Your task to perform on an android device: Search for Mexican restaurants on Maps Image 0: 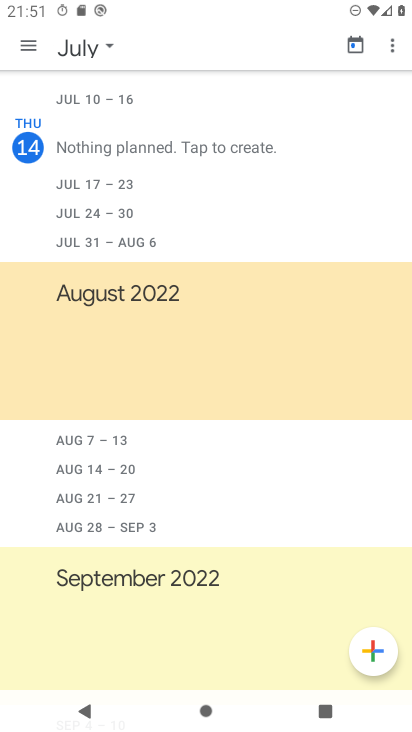
Step 0: press home button
Your task to perform on an android device: Search for Mexican restaurants on Maps Image 1: 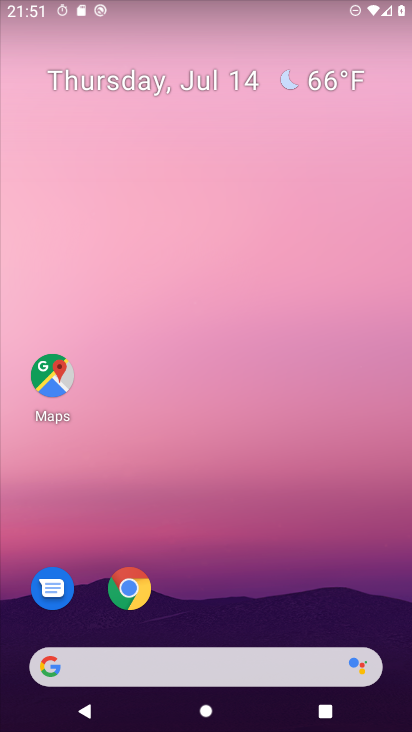
Step 1: drag from (303, 548) to (303, 142)
Your task to perform on an android device: Search for Mexican restaurants on Maps Image 2: 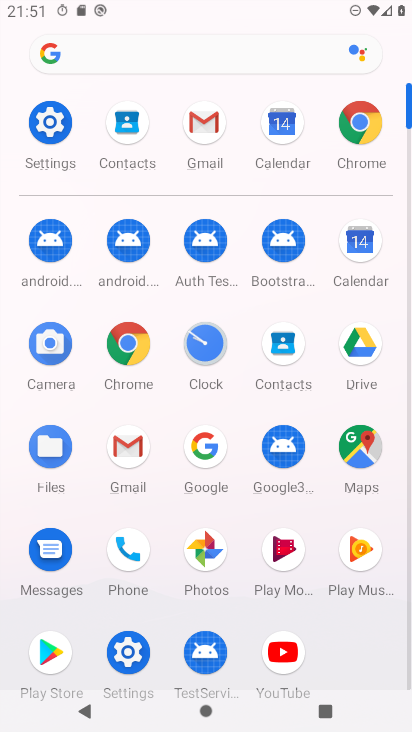
Step 2: click (363, 449)
Your task to perform on an android device: Search for Mexican restaurants on Maps Image 3: 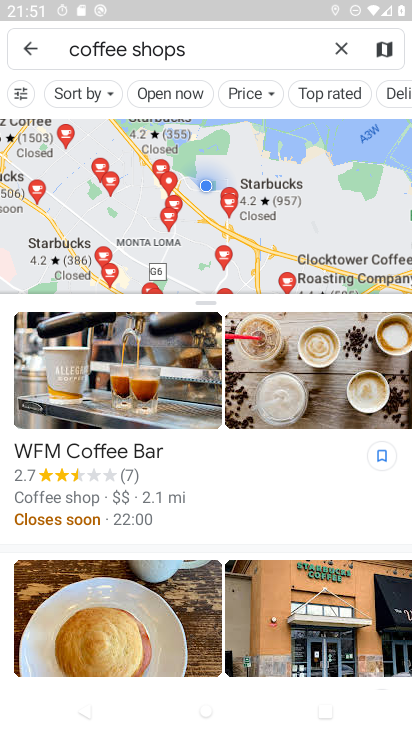
Step 3: press back button
Your task to perform on an android device: Search for Mexican restaurants on Maps Image 4: 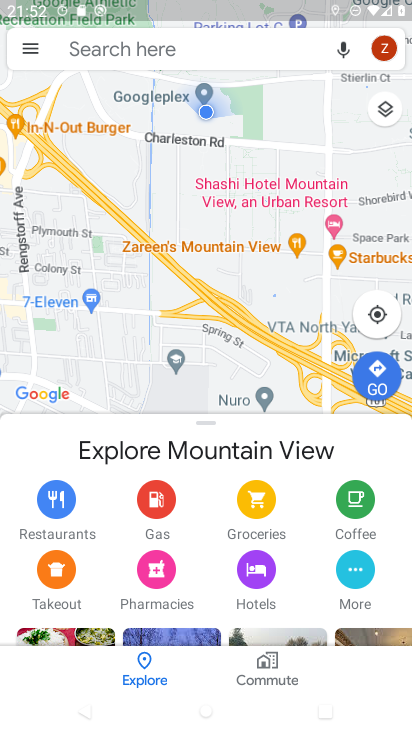
Step 4: click (226, 51)
Your task to perform on an android device: Search for Mexican restaurants on Maps Image 5: 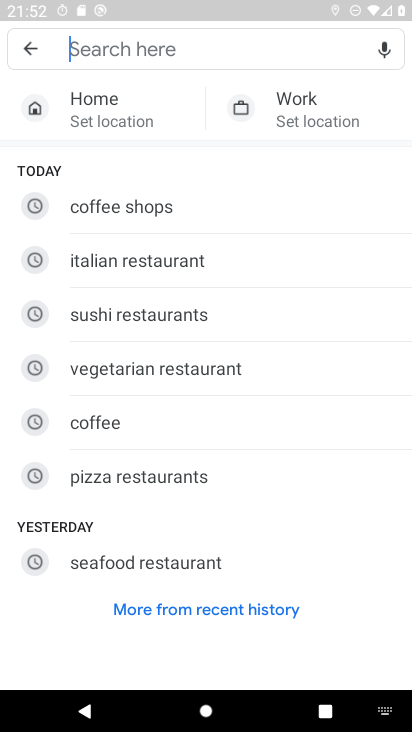
Step 5: type "mexcian restaurants"
Your task to perform on an android device: Search for Mexican restaurants on Maps Image 6: 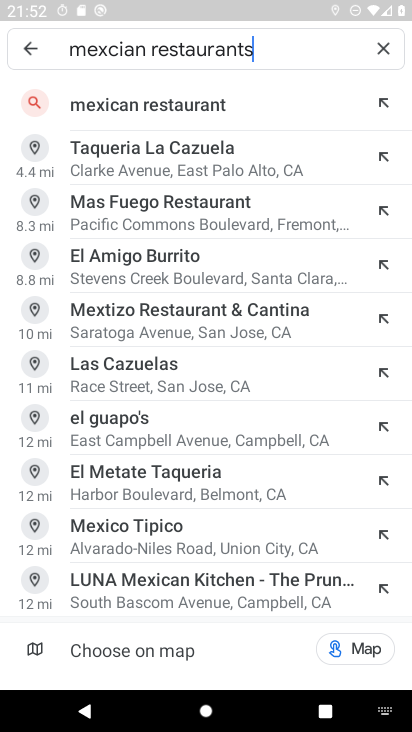
Step 6: click (202, 108)
Your task to perform on an android device: Search for Mexican restaurants on Maps Image 7: 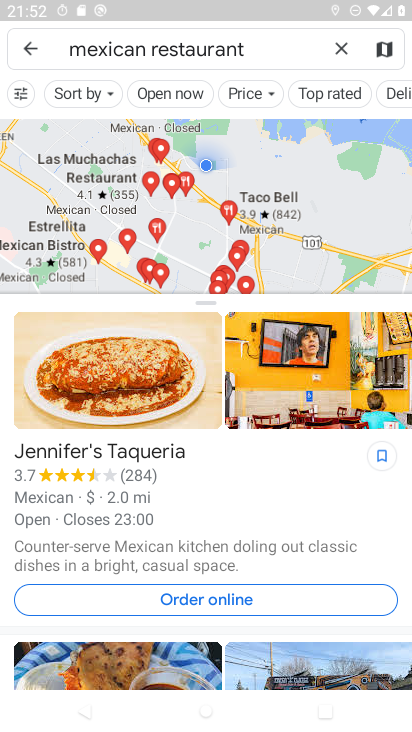
Step 7: task complete